Your task to perform on an android device: Open the calendar and show me this week's events Image 0: 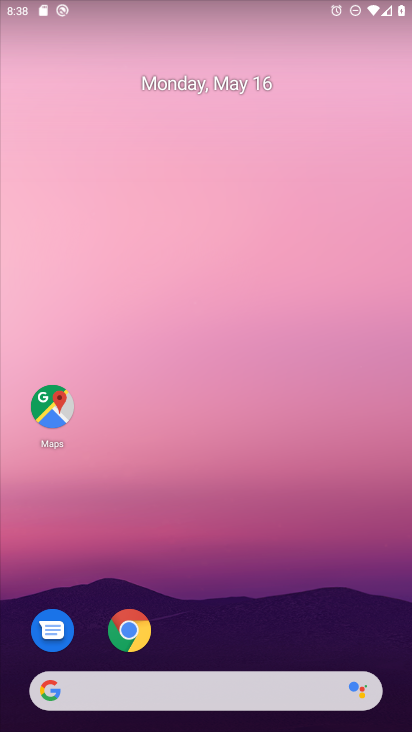
Step 0: drag from (242, 570) to (152, 92)
Your task to perform on an android device: Open the calendar and show me this week's events Image 1: 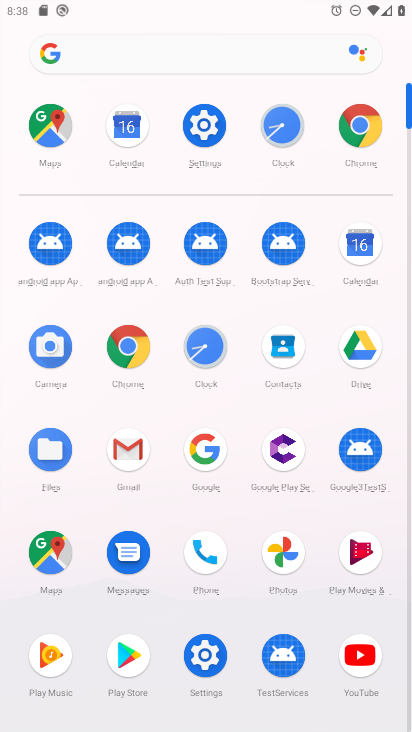
Step 1: click (131, 134)
Your task to perform on an android device: Open the calendar and show me this week's events Image 2: 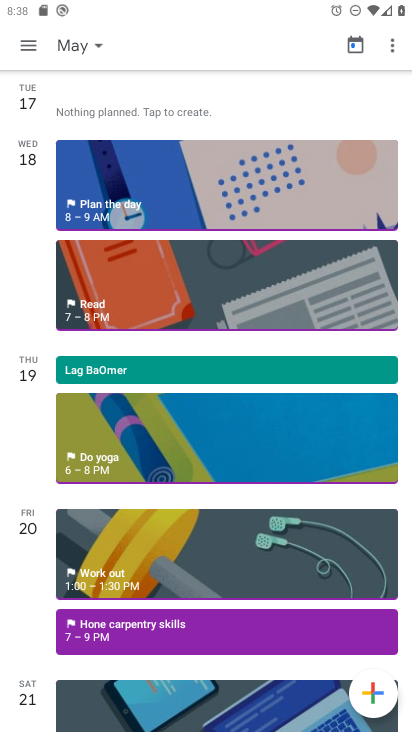
Step 2: click (31, 46)
Your task to perform on an android device: Open the calendar and show me this week's events Image 3: 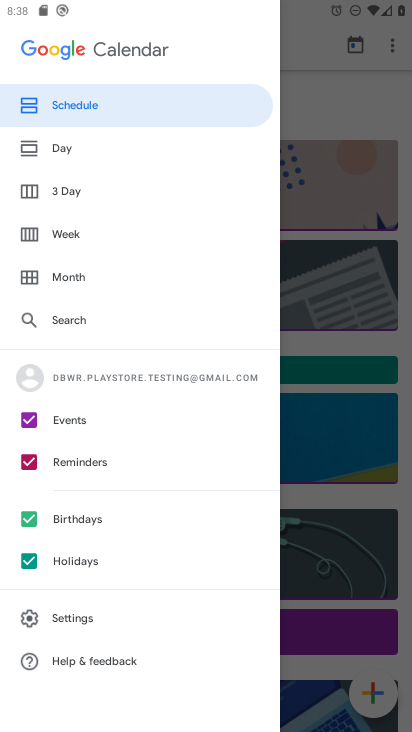
Step 3: click (92, 235)
Your task to perform on an android device: Open the calendar and show me this week's events Image 4: 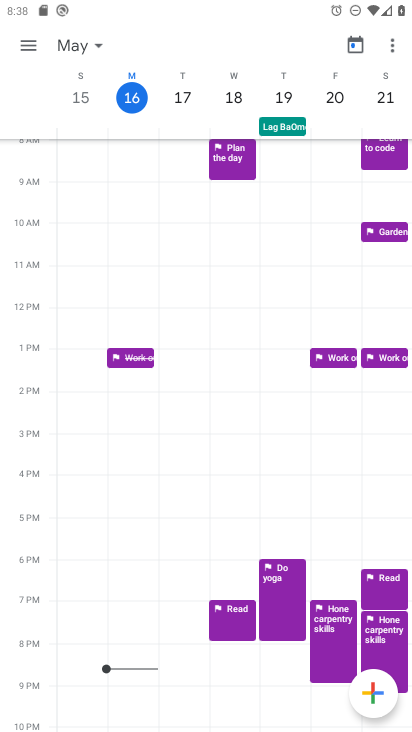
Step 4: task complete